Your task to perform on an android device: add a label to a message in the gmail app Image 0: 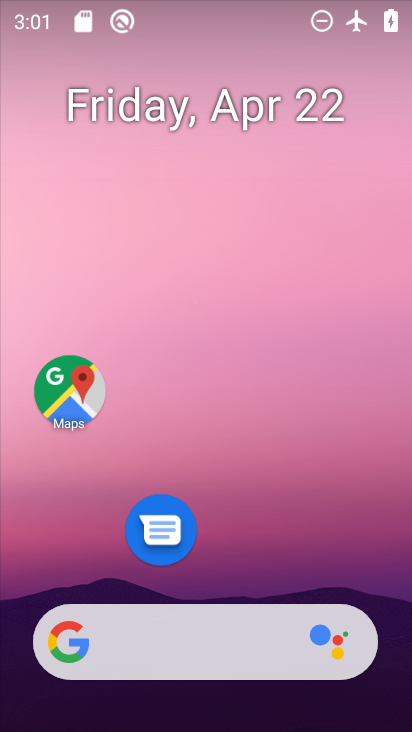
Step 0: drag from (281, 557) to (235, 20)
Your task to perform on an android device: add a label to a message in the gmail app Image 1: 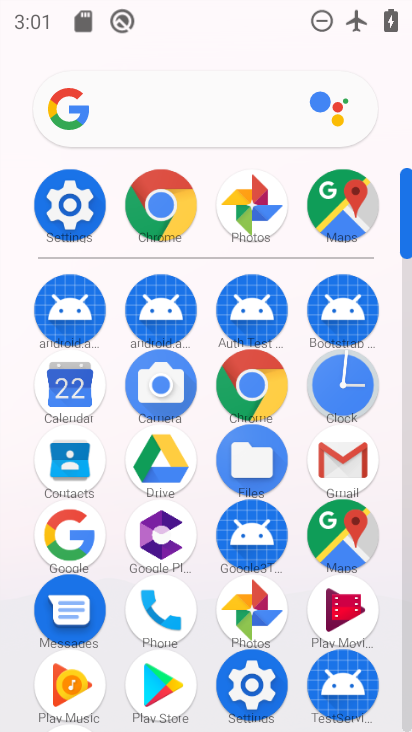
Step 1: click (343, 449)
Your task to perform on an android device: add a label to a message in the gmail app Image 2: 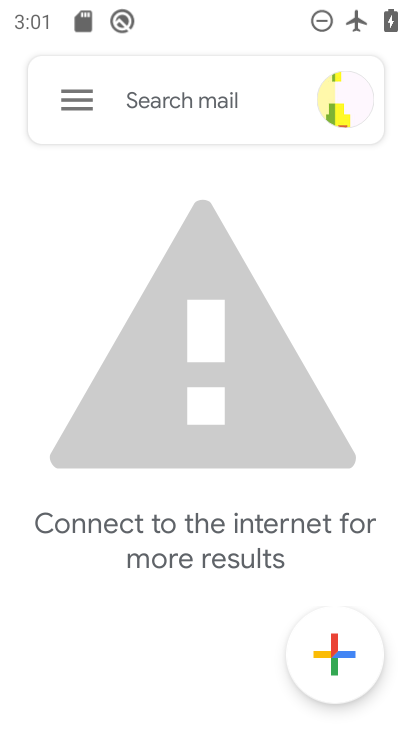
Step 2: click (79, 97)
Your task to perform on an android device: add a label to a message in the gmail app Image 3: 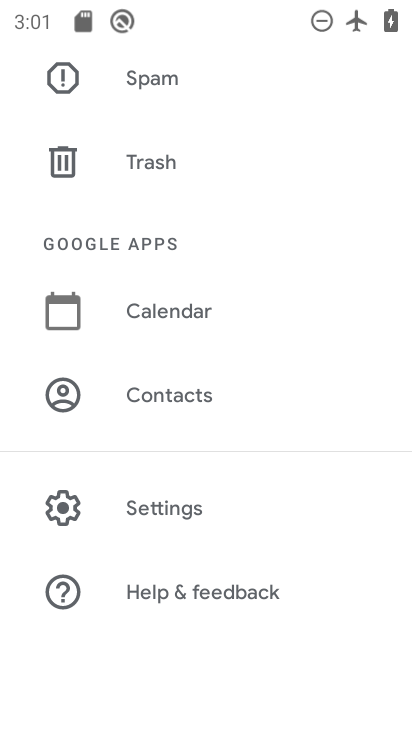
Step 3: drag from (267, 186) to (204, 731)
Your task to perform on an android device: add a label to a message in the gmail app Image 4: 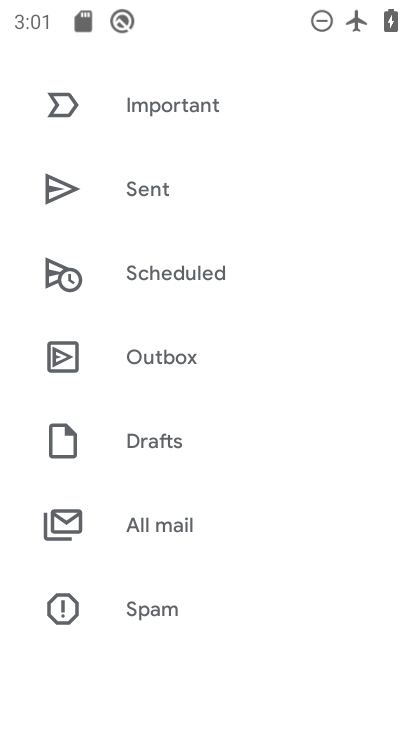
Step 4: drag from (183, 150) to (172, 481)
Your task to perform on an android device: add a label to a message in the gmail app Image 5: 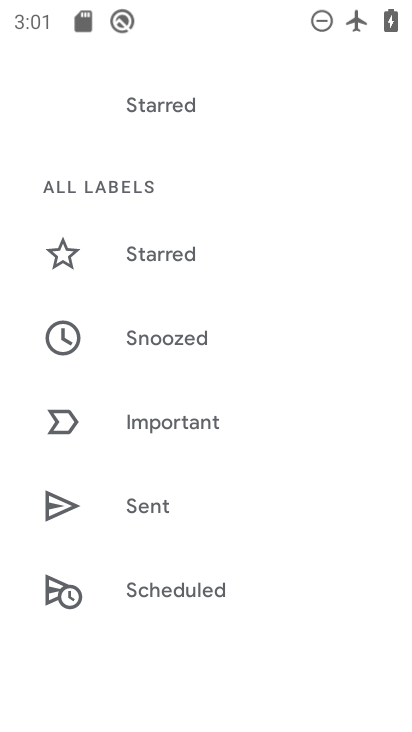
Step 5: click (184, 14)
Your task to perform on an android device: add a label to a message in the gmail app Image 6: 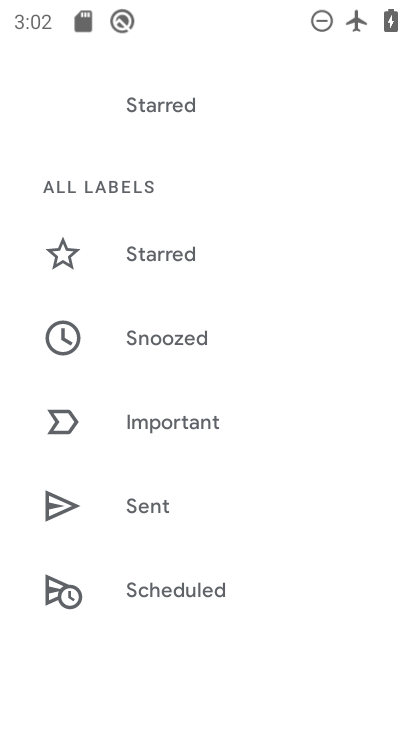
Step 6: drag from (231, 510) to (206, 71)
Your task to perform on an android device: add a label to a message in the gmail app Image 7: 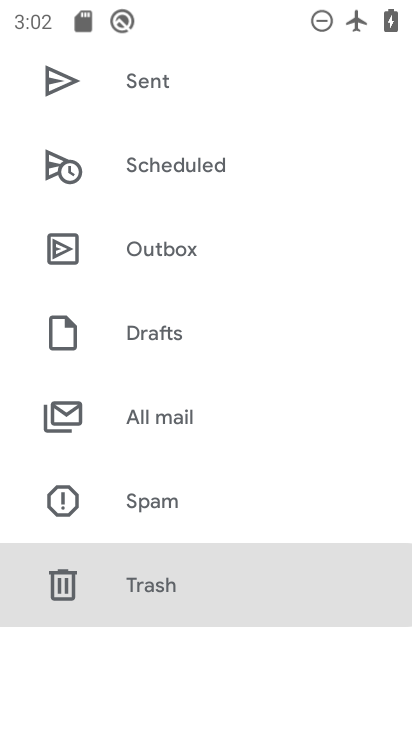
Step 7: drag from (212, 542) to (205, 222)
Your task to perform on an android device: add a label to a message in the gmail app Image 8: 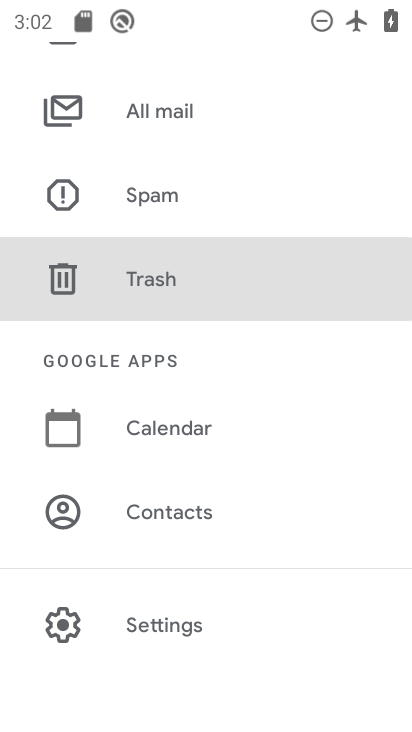
Step 8: click (154, 115)
Your task to perform on an android device: add a label to a message in the gmail app Image 9: 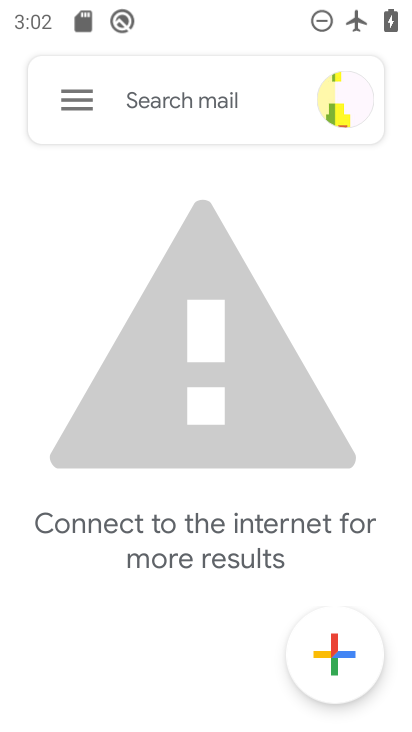
Step 9: task complete